Your task to perform on an android device: uninstall "TextNow: Call + Text Unlimited" Image 0: 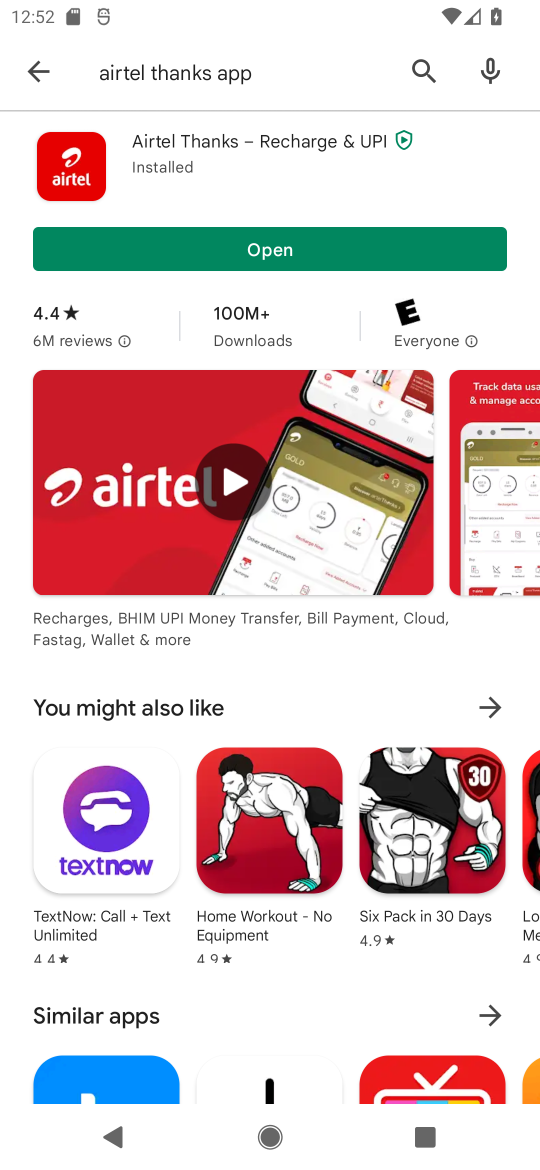
Step 0: press home button
Your task to perform on an android device: uninstall "TextNow: Call + Text Unlimited" Image 1: 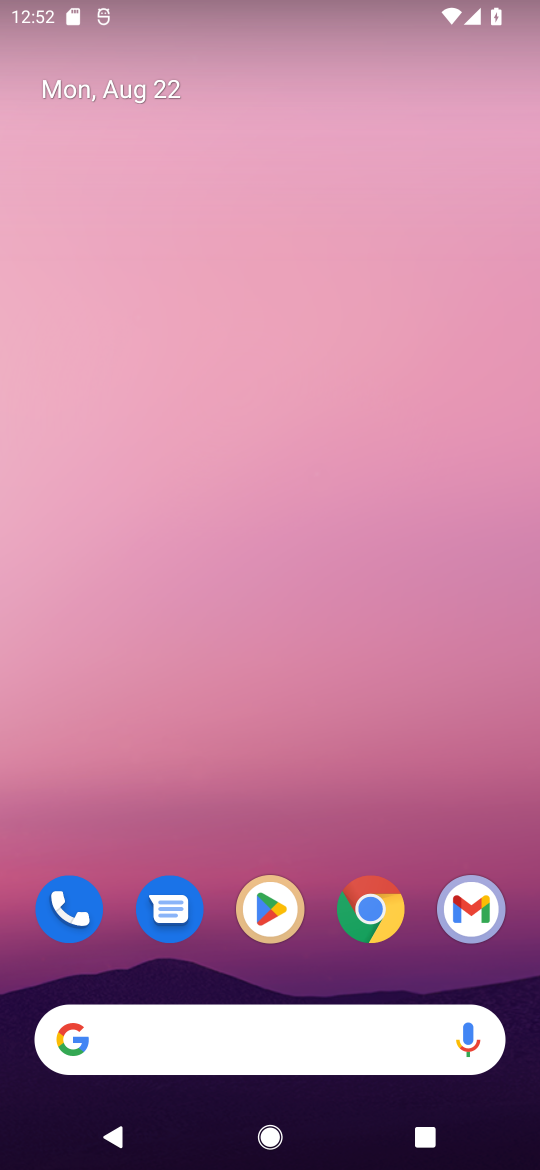
Step 1: click (262, 902)
Your task to perform on an android device: uninstall "TextNow: Call + Text Unlimited" Image 2: 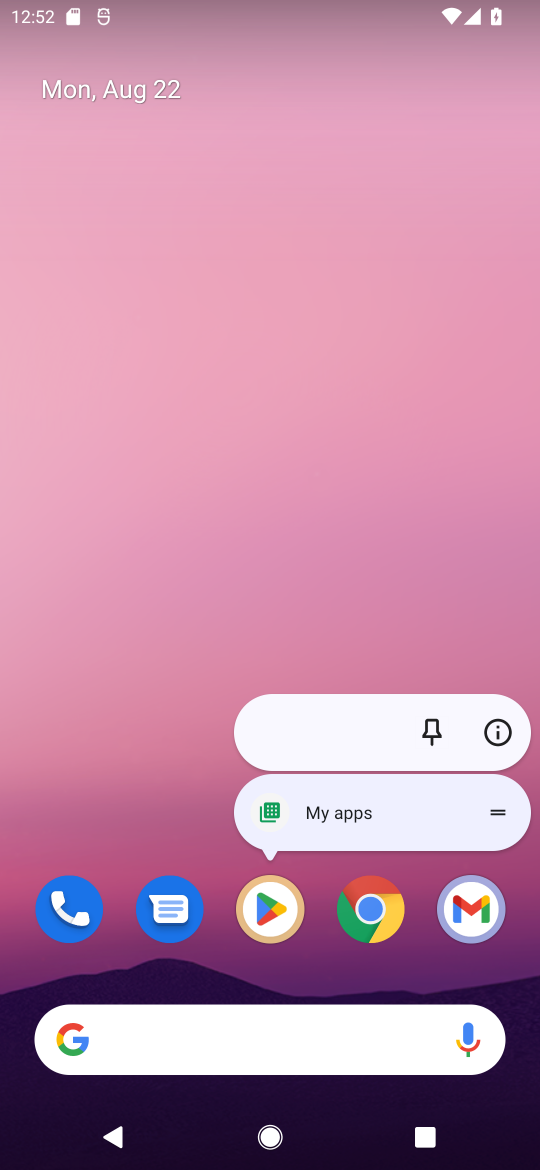
Step 2: click (265, 904)
Your task to perform on an android device: uninstall "TextNow: Call + Text Unlimited" Image 3: 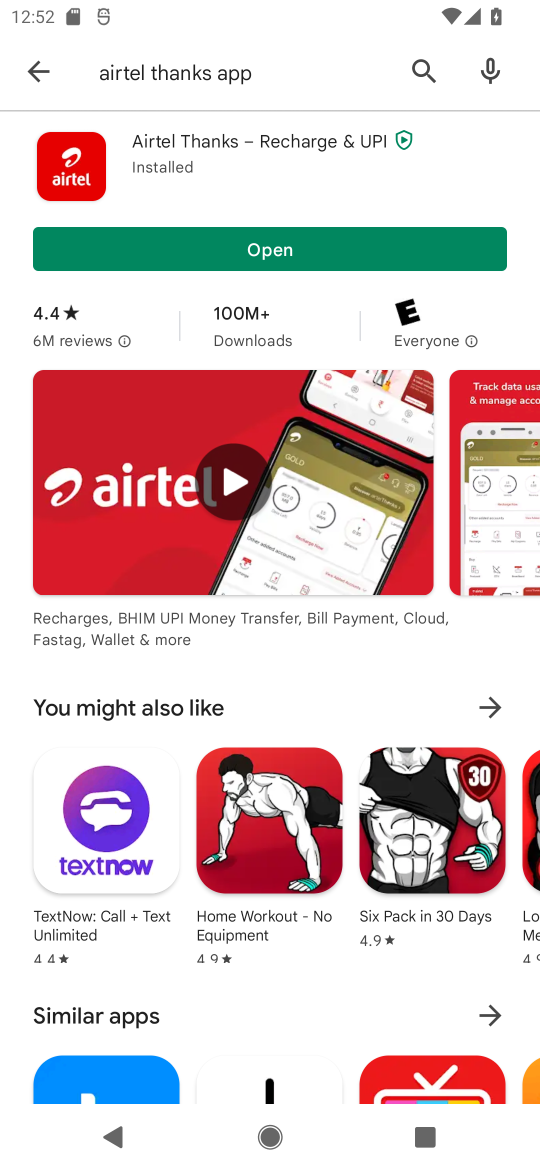
Step 3: click (437, 61)
Your task to perform on an android device: uninstall "TextNow: Call + Text Unlimited" Image 4: 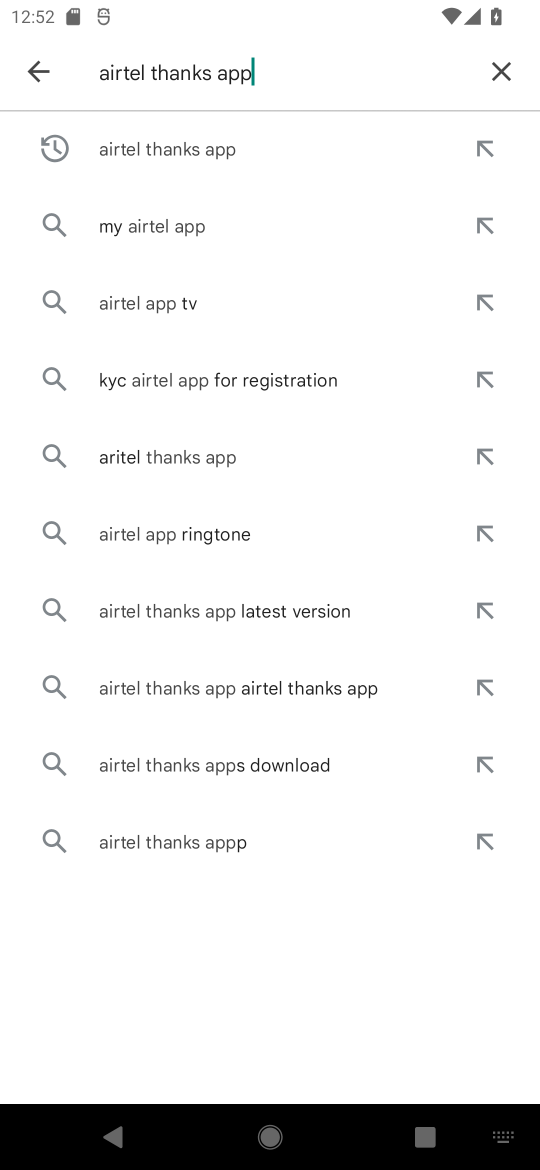
Step 4: click (488, 63)
Your task to perform on an android device: uninstall "TextNow: Call + Text Unlimited" Image 5: 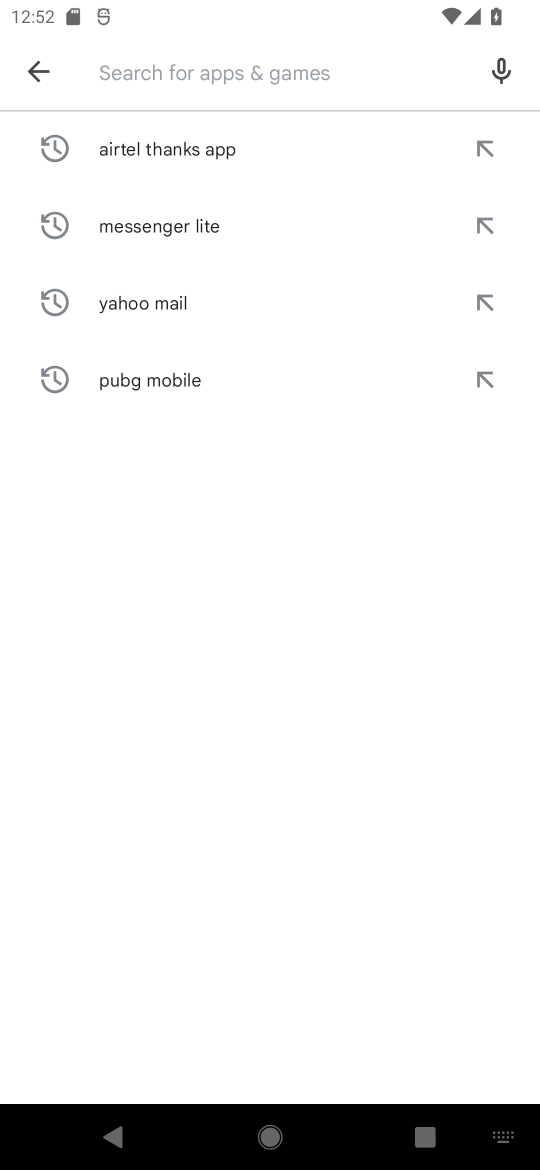
Step 5: click (154, 74)
Your task to perform on an android device: uninstall "TextNow: Call + Text Unlimited" Image 6: 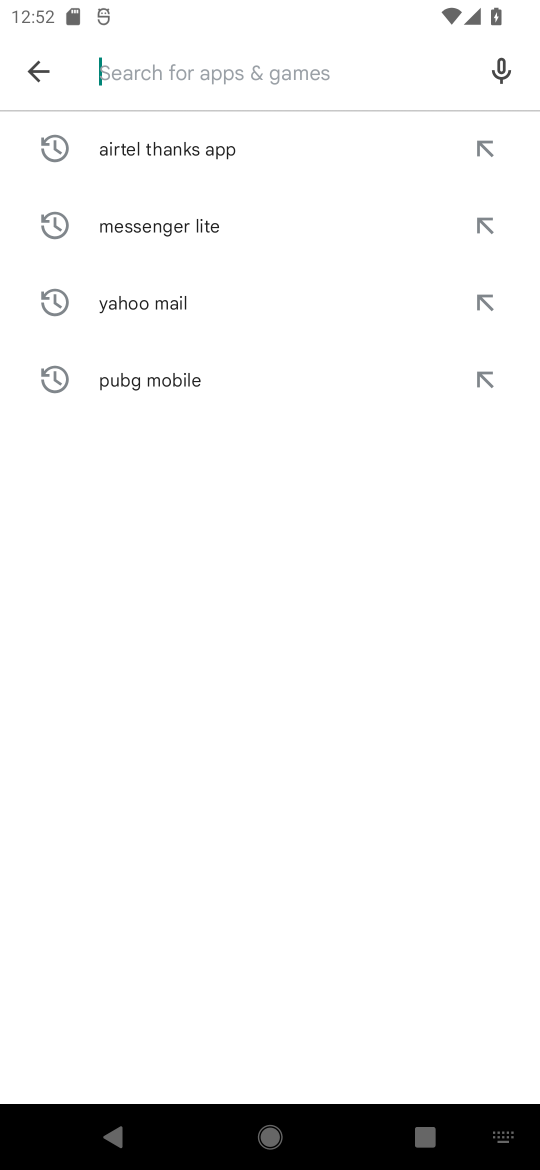
Step 6: type "TextNow"
Your task to perform on an android device: uninstall "TextNow: Call + Text Unlimited" Image 7: 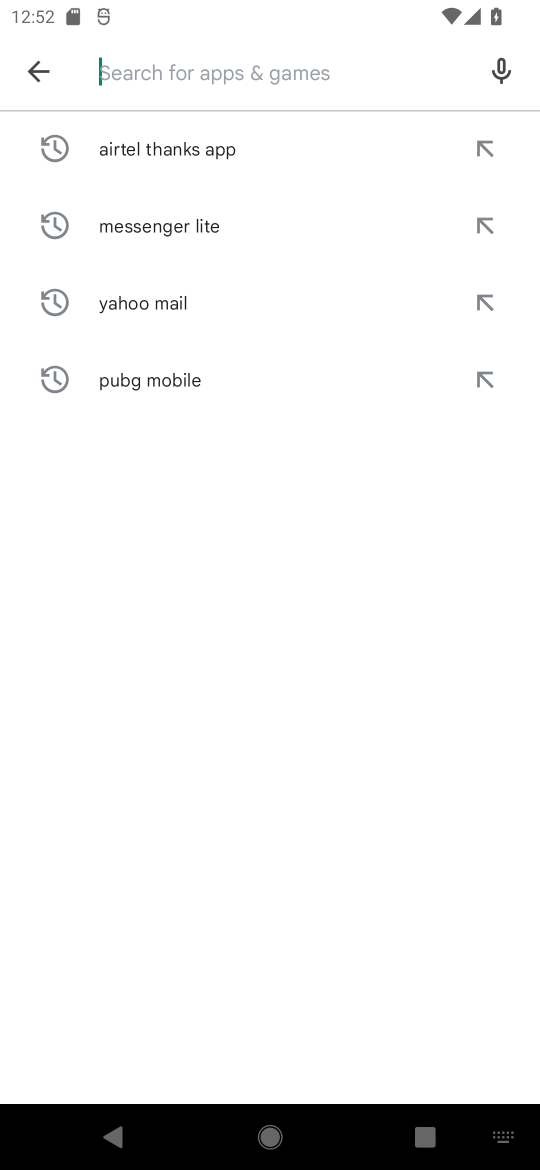
Step 7: click (378, 710)
Your task to perform on an android device: uninstall "TextNow: Call + Text Unlimited" Image 8: 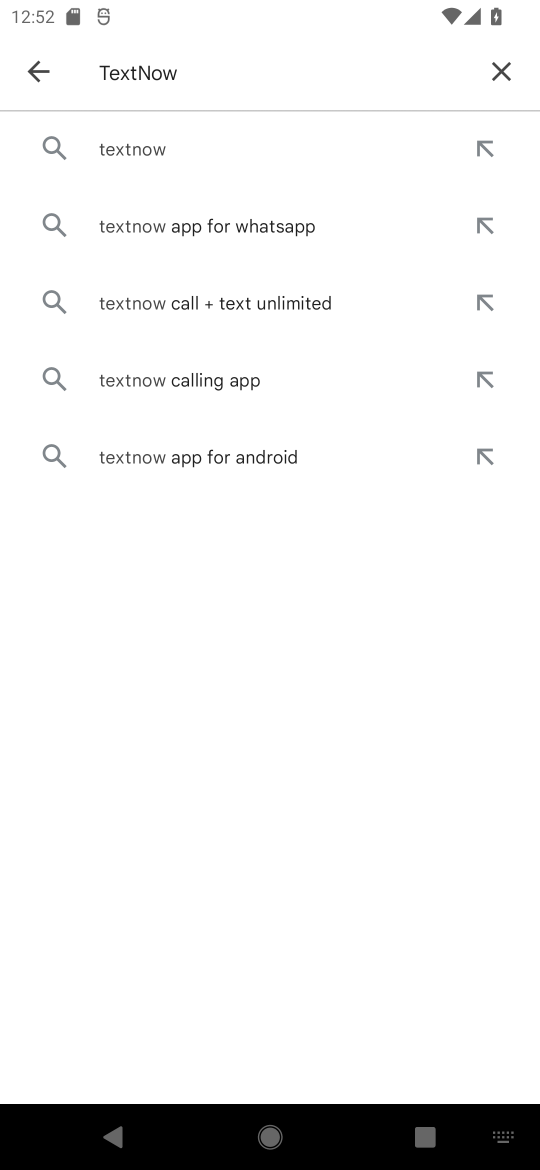
Step 8: click (126, 143)
Your task to perform on an android device: uninstall "TextNow: Call + Text Unlimited" Image 9: 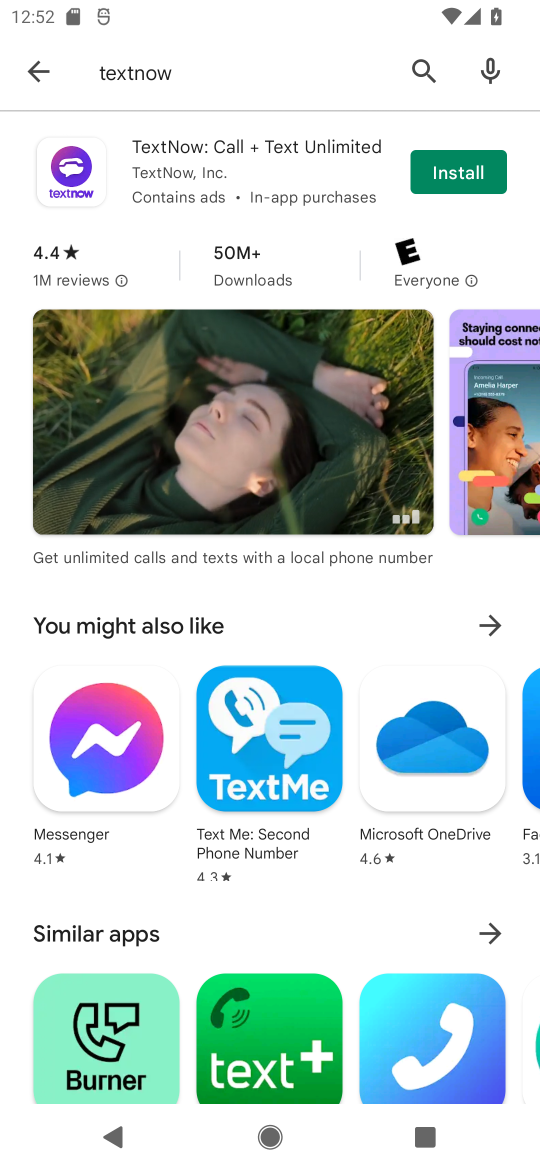
Step 9: click (279, 159)
Your task to perform on an android device: uninstall "TextNow: Call + Text Unlimited" Image 10: 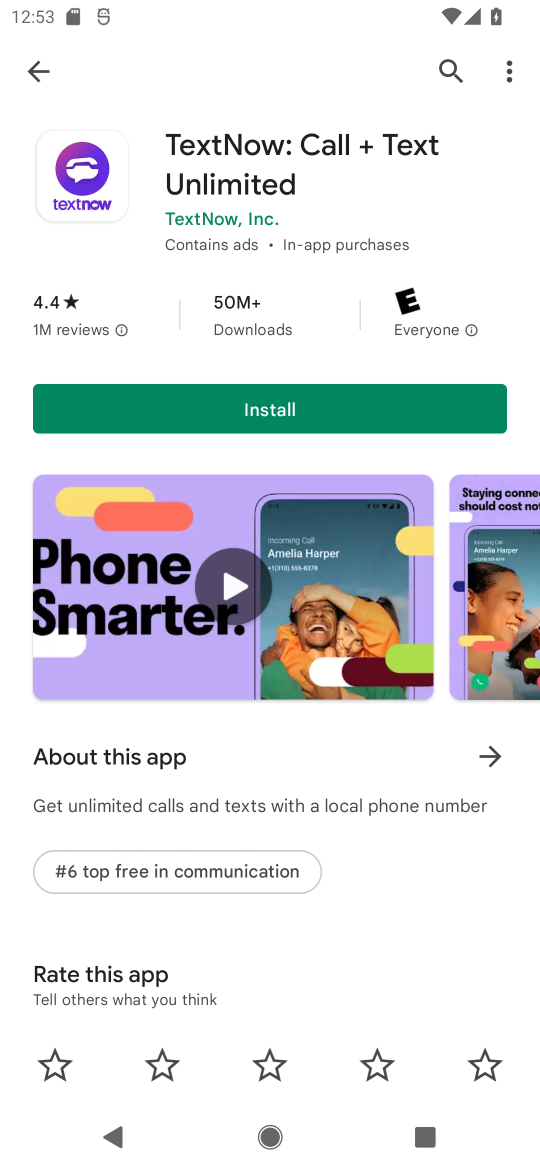
Step 10: task complete